Your task to perform on an android device: open app "Venmo" (install if not already installed) and go to login screen Image 0: 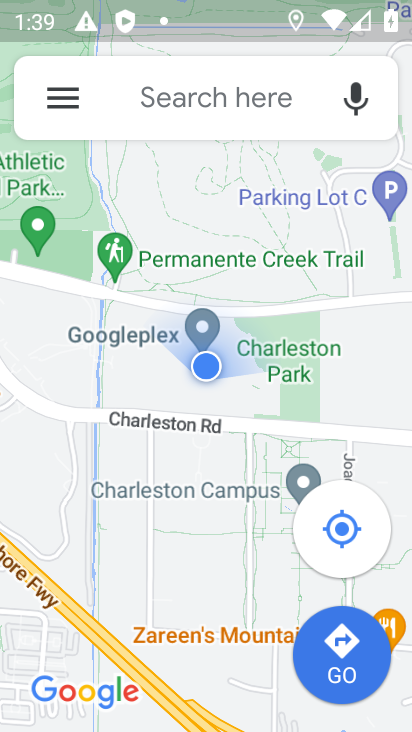
Step 0: press home button
Your task to perform on an android device: open app "Venmo" (install if not already installed) and go to login screen Image 1: 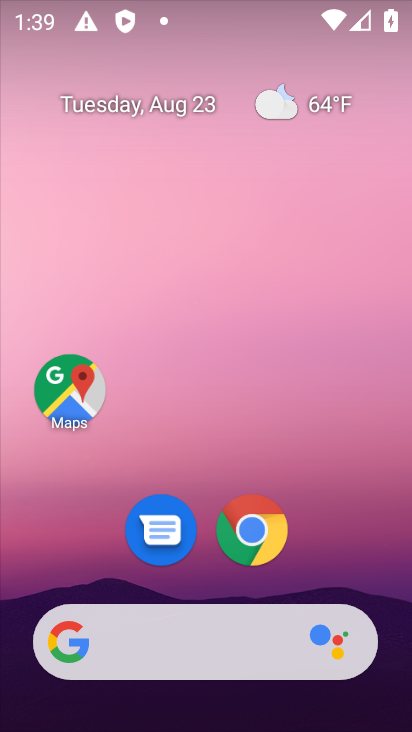
Step 1: drag from (216, 572) to (181, 240)
Your task to perform on an android device: open app "Venmo" (install if not already installed) and go to login screen Image 2: 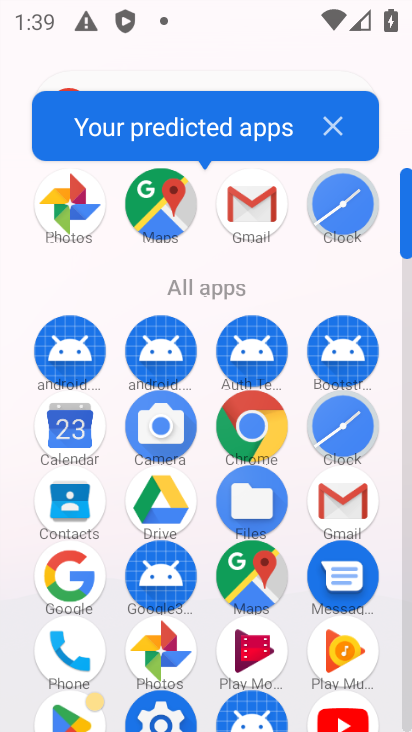
Step 2: drag from (221, 663) to (60, 26)
Your task to perform on an android device: open app "Venmo" (install if not already installed) and go to login screen Image 3: 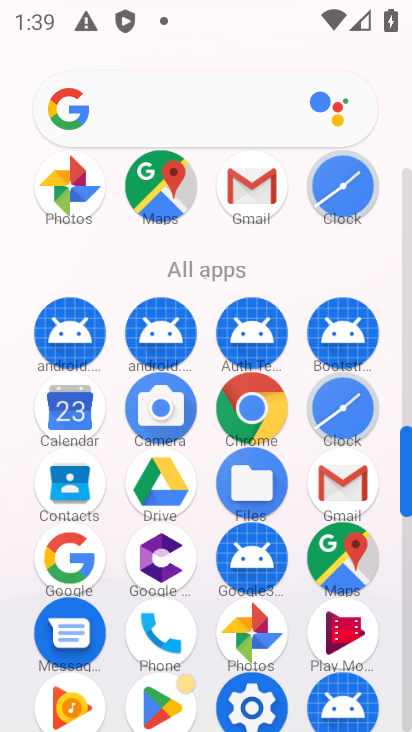
Step 3: click (162, 702)
Your task to perform on an android device: open app "Venmo" (install if not already installed) and go to login screen Image 4: 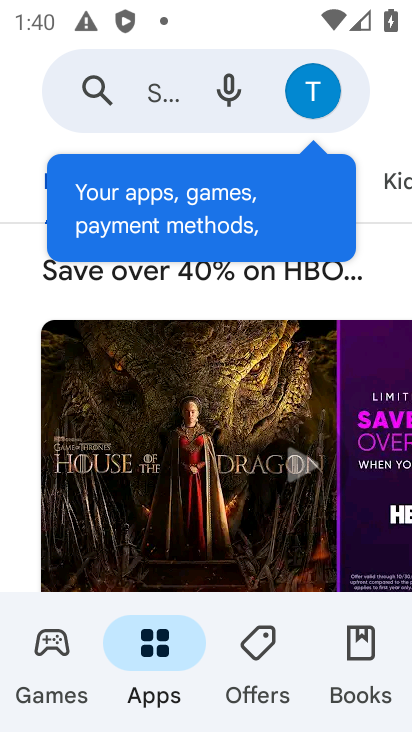
Step 4: click (163, 97)
Your task to perform on an android device: open app "Venmo" (install if not already installed) and go to login screen Image 5: 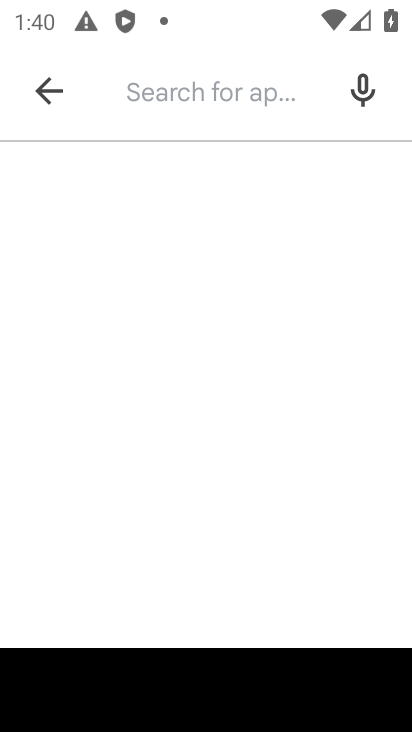
Step 5: type "Venmo"
Your task to perform on an android device: open app "Venmo" (install if not already installed) and go to login screen Image 6: 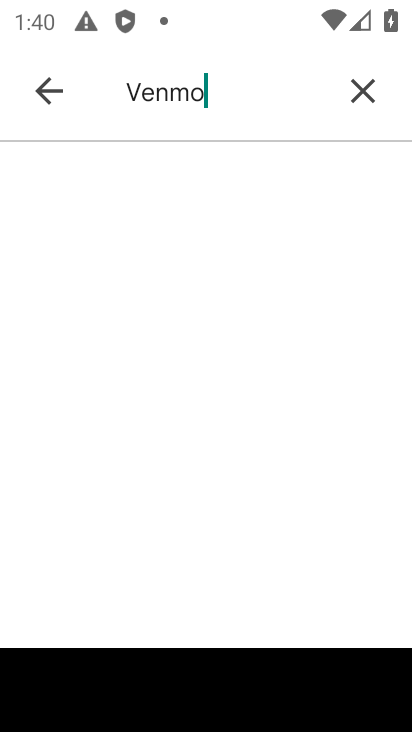
Step 6: press enter
Your task to perform on an android device: open app "Venmo" (install if not already installed) and go to login screen Image 7: 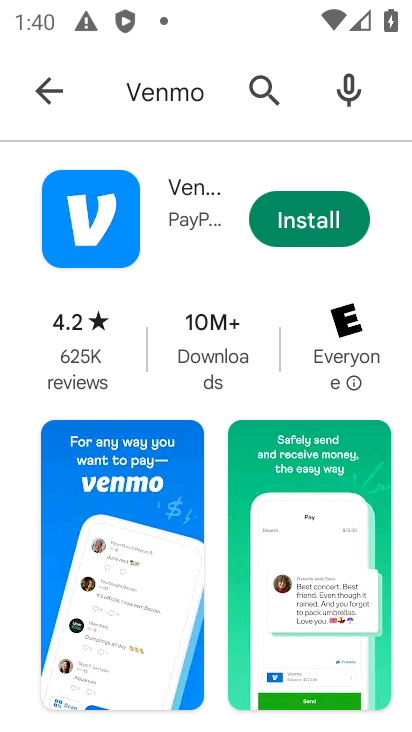
Step 7: click (290, 211)
Your task to perform on an android device: open app "Venmo" (install if not already installed) and go to login screen Image 8: 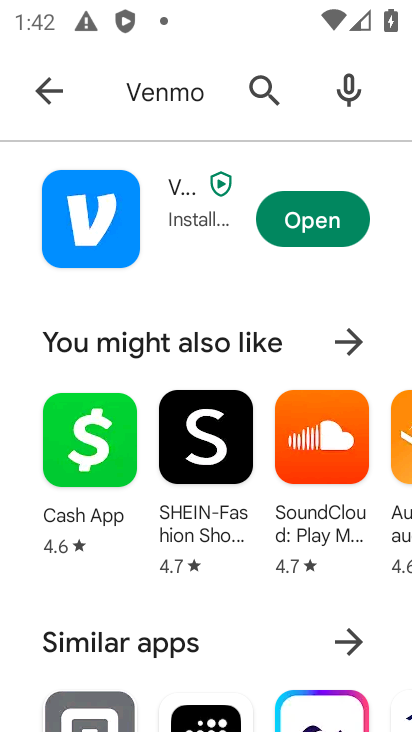
Step 8: click (311, 220)
Your task to perform on an android device: open app "Venmo" (install if not already installed) and go to login screen Image 9: 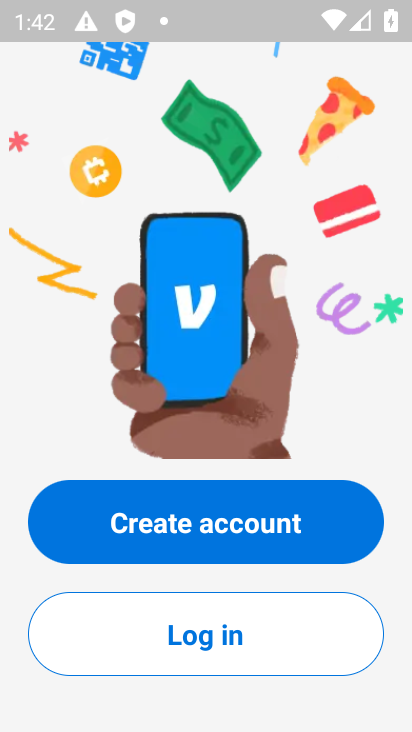
Step 9: task complete